Your task to perform on an android device: Go to accessibility settings Image 0: 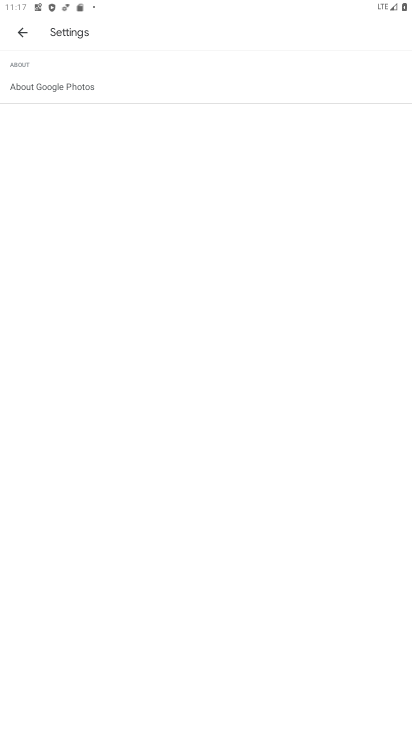
Step 0: press home button
Your task to perform on an android device: Go to accessibility settings Image 1: 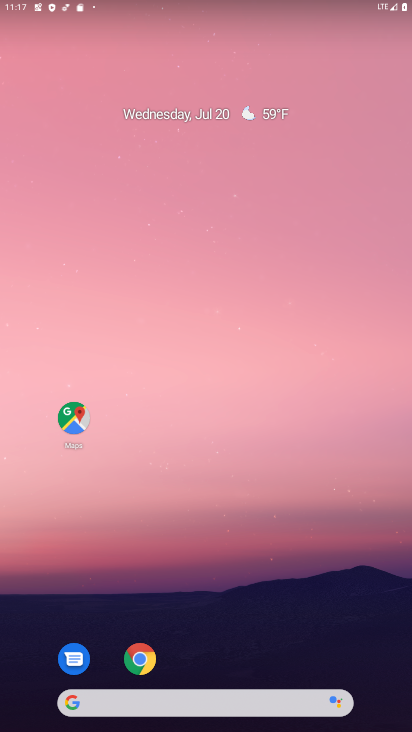
Step 1: drag from (208, 726) to (208, 156)
Your task to perform on an android device: Go to accessibility settings Image 2: 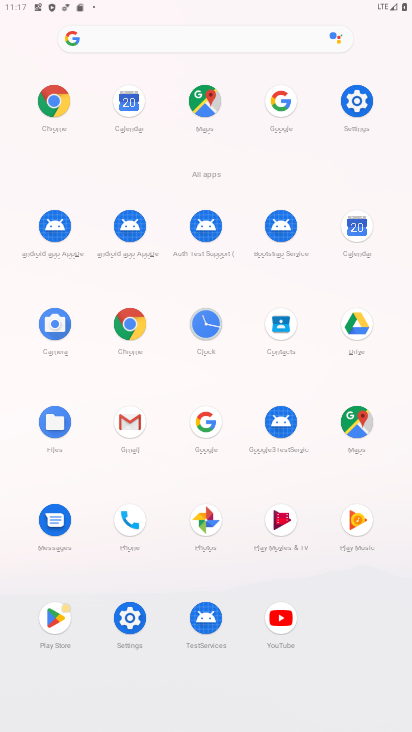
Step 2: click (365, 98)
Your task to perform on an android device: Go to accessibility settings Image 3: 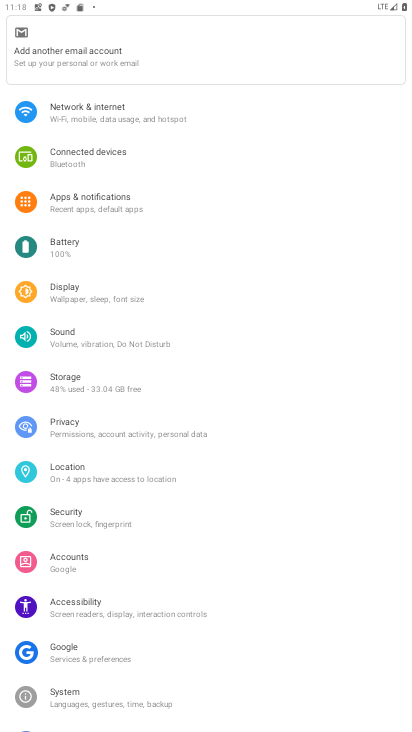
Step 3: click (78, 609)
Your task to perform on an android device: Go to accessibility settings Image 4: 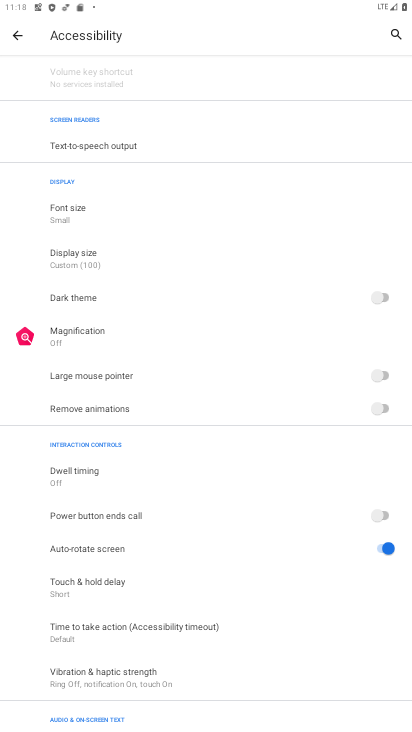
Step 4: task complete